Your task to perform on an android device: Go to location settings Image 0: 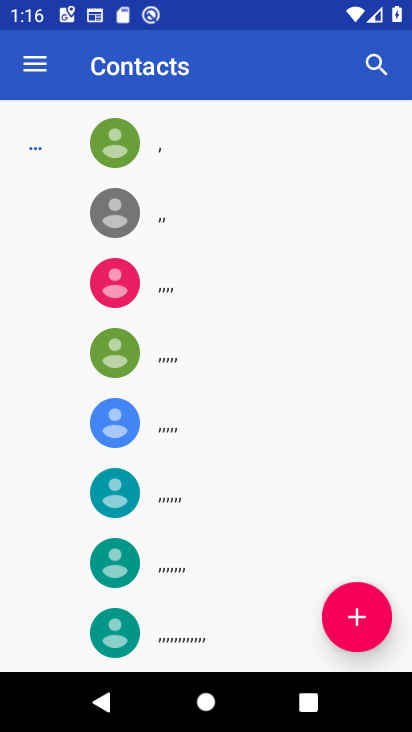
Step 0: press home button
Your task to perform on an android device: Go to location settings Image 1: 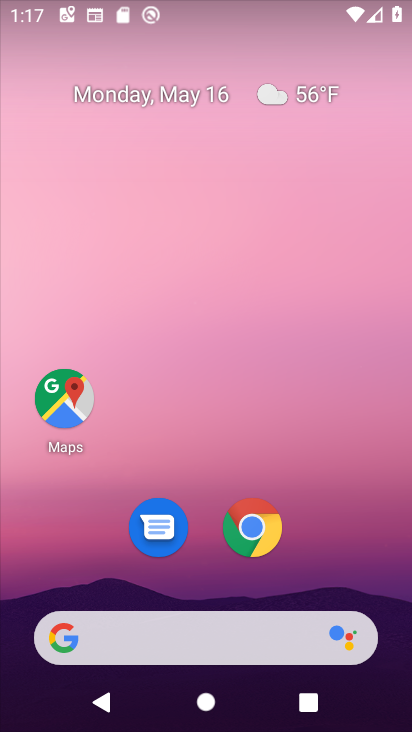
Step 1: drag from (155, 629) to (102, 82)
Your task to perform on an android device: Go to location settings Image 2: 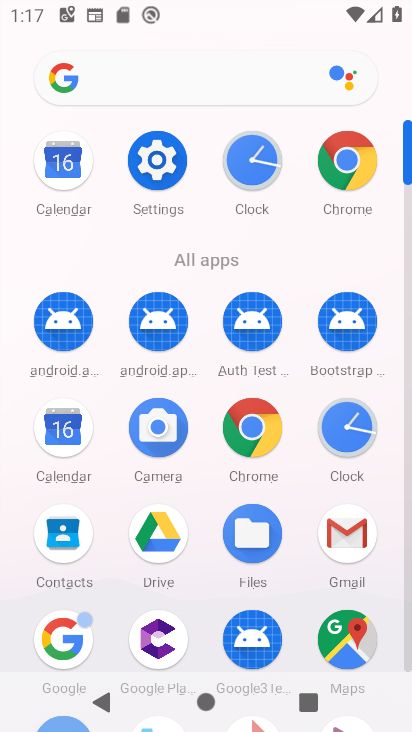
Step 2: click (155, 184)
Your task to perform on an android device: Go to location settings Image 3: 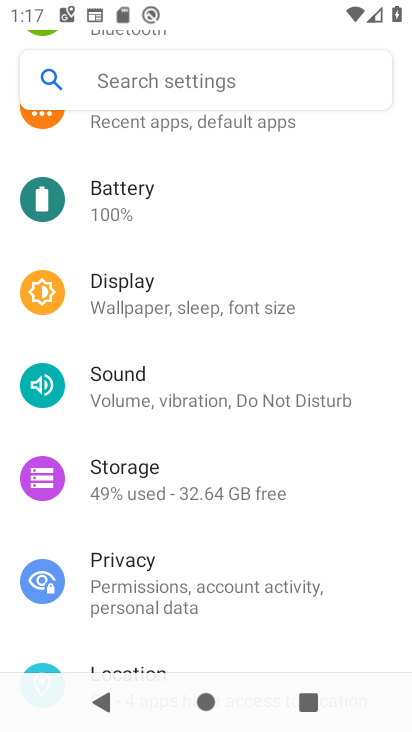
Step 3: drag from (154, 590) to (95, 128)
Your task to perform on an android device: Go to location settings Image 4: 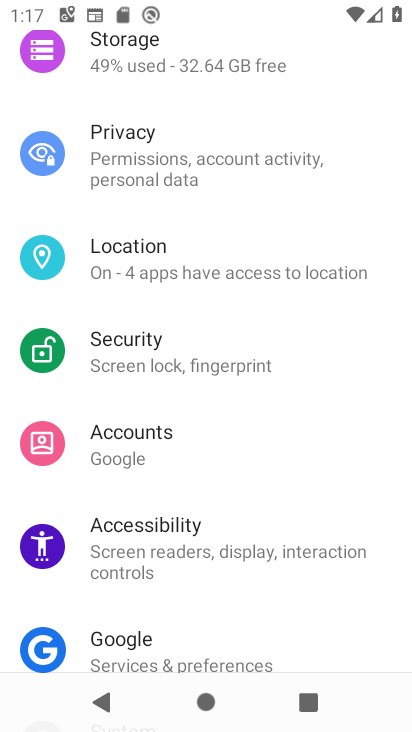
Step 4: click (143, 269)
Your task to perform on an android device: Go to location settings Image 5: 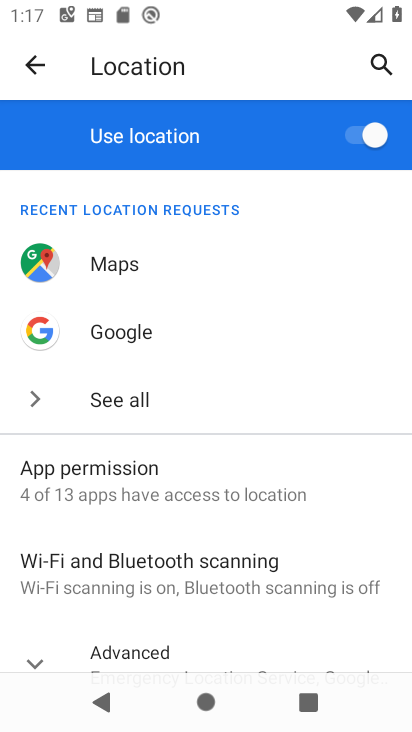
Step 5: task complete